Your task to perform on an android device: Open my contact list Image 0: 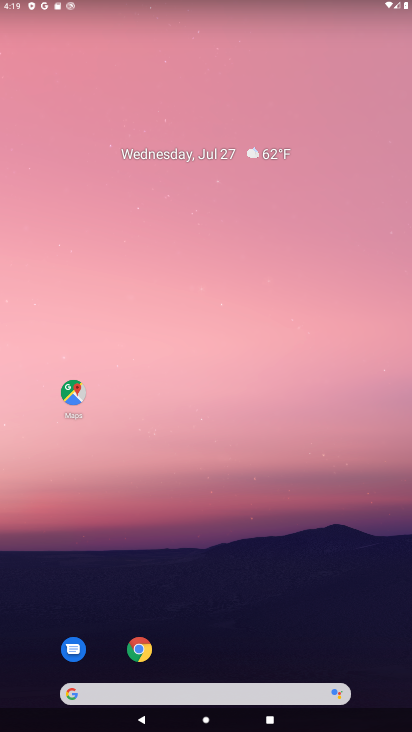
Step 0: drag from (236, 602) to (272, 264)
Your task to perform on an android device: Open my contact list Image 1: 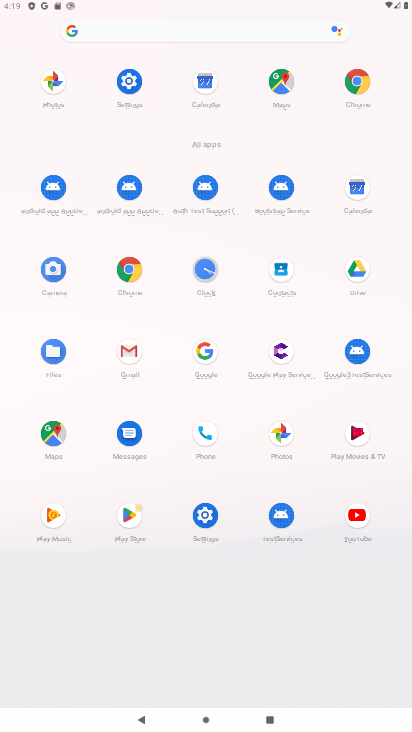
Step 1: click (281, 266)
Your task to perform on an android device: Open my contact list Image 2: 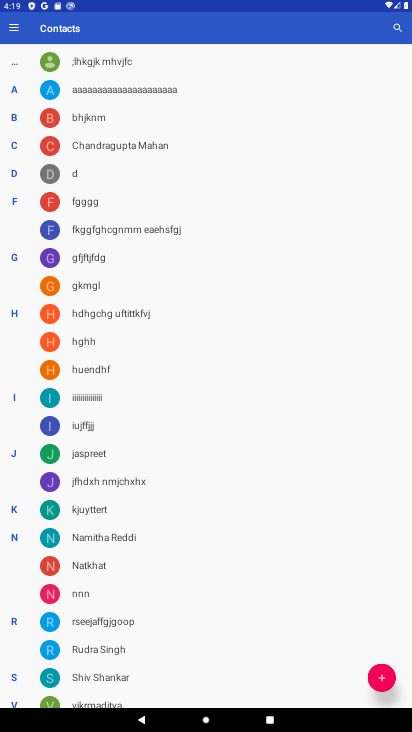
Step 2: task complete